Your task to perform on an android device: toggle translation in the chrome app Image 0: 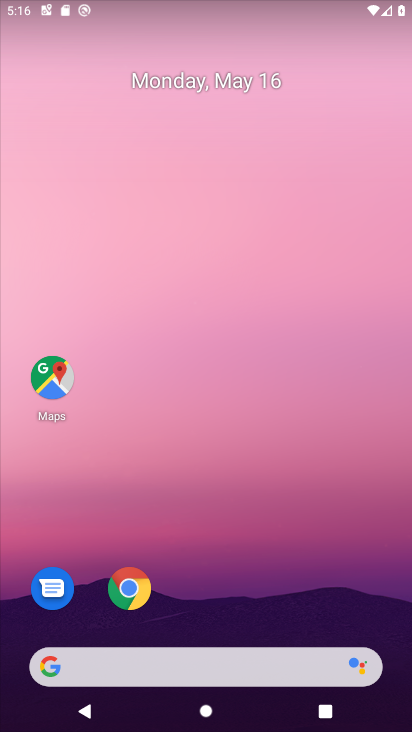
Step 0: click (135, 580)
Your task to perform on an android device: toggle translation in the chrome app Image 1: 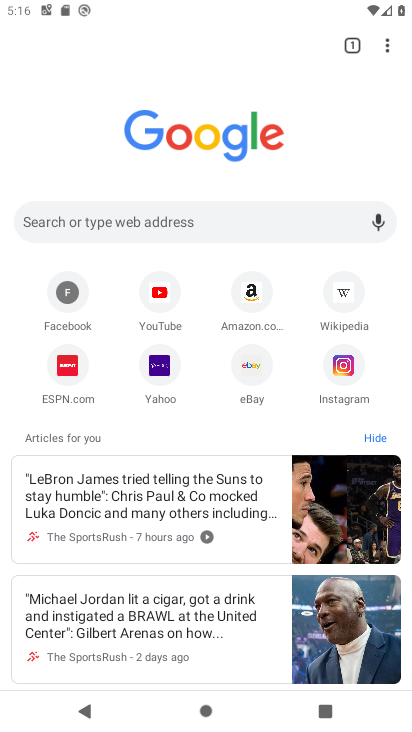
Step 1: click (377, 44)
Your task to perform on an android device: toggle translation in the chrome app Image 2: 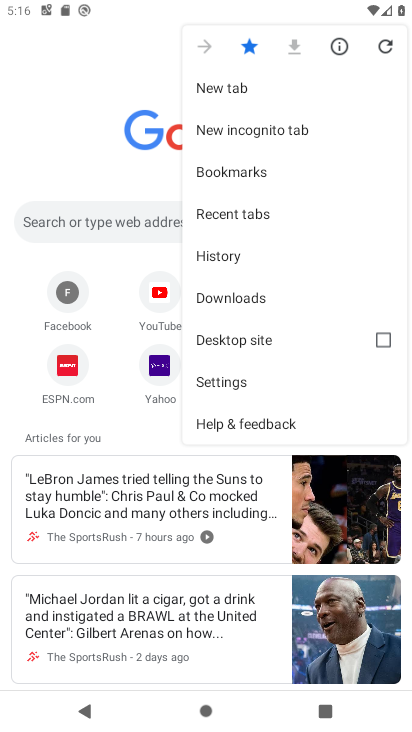
Step 2: click (245, 383)
Your task to perform on an android device: toggle translation in the chrome app Image 3: 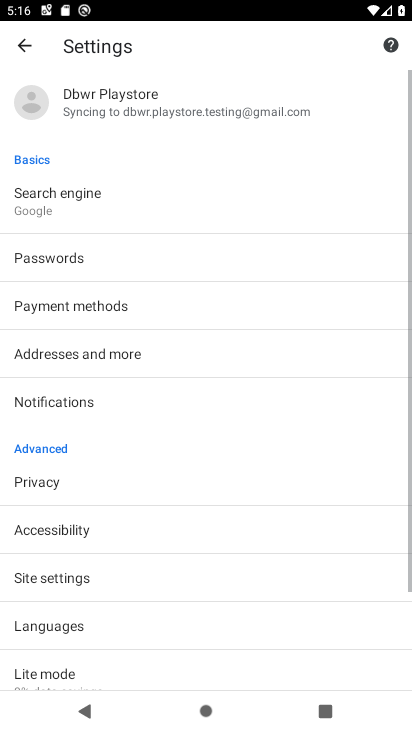
Step 3: click (147, 634)
Your task to perform on an android device: toggle translation in the chrome app Image 4: 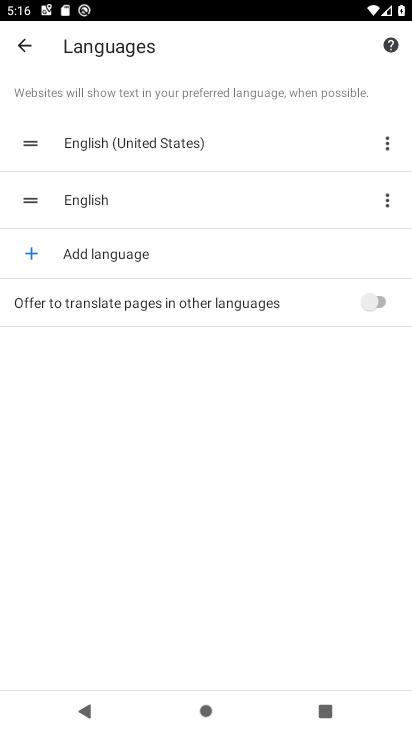
Step 4: click (355, 301)
Your task to perform on an android device: toggle translation in the chrome app Image 5: 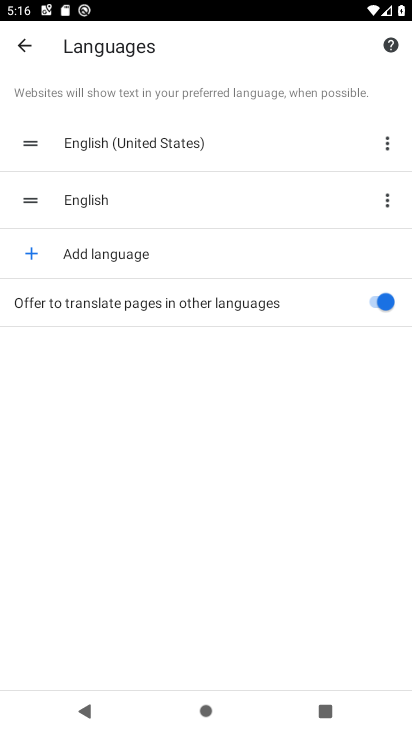
Step 5: task complete